Your task to perform on an android device: Open the map Image 0: 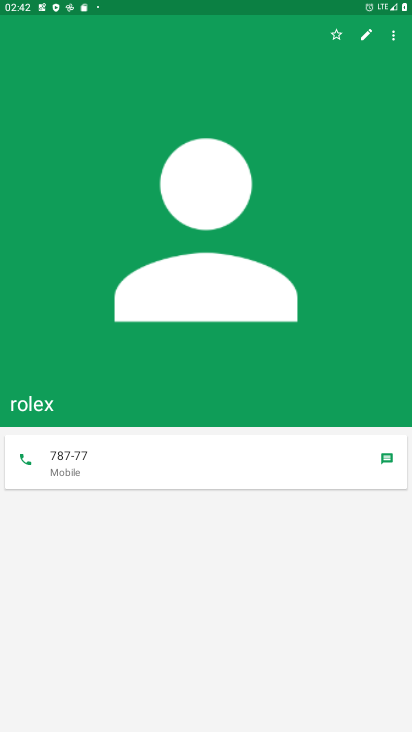
Step 0: press home button
Your task to perform on an android device: Open the map Image 1: 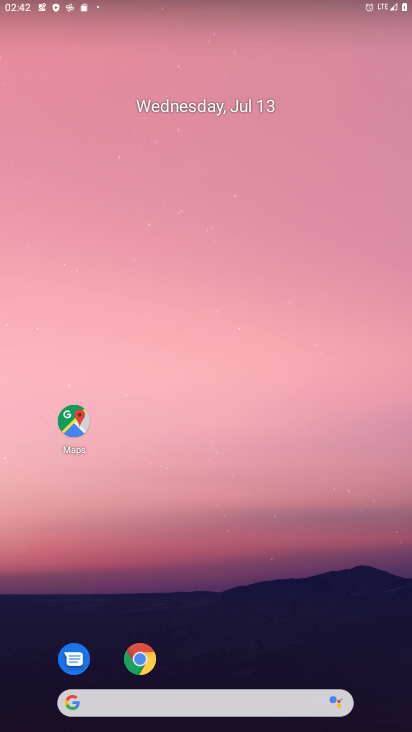
Step 1: drag from (200, 716) to (200, 112)
Your task to perform on an android device: Open the map Image 2: 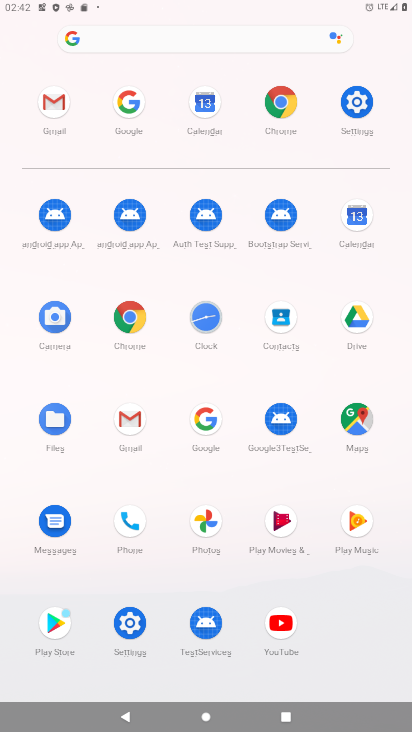
Step 2: click (365, 417)
Your task to perform on an android device: Open the map Image 3: 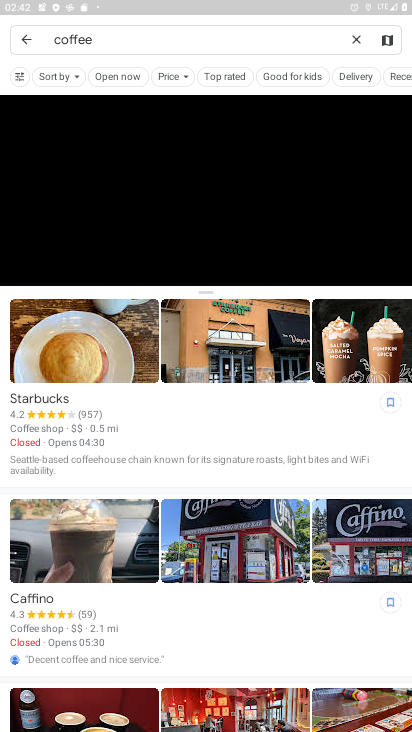
Step 3: task complete